Your task to perform on an android device: turn off wifi Image 0: 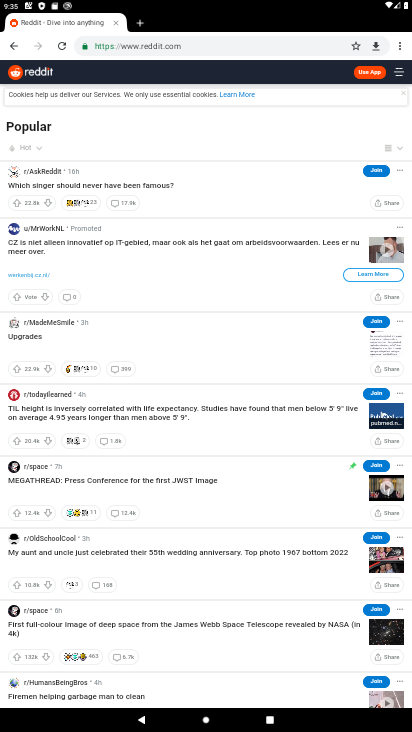
Step 0: press home button
Your task to perform on an android device: turn off wifi Image 1: 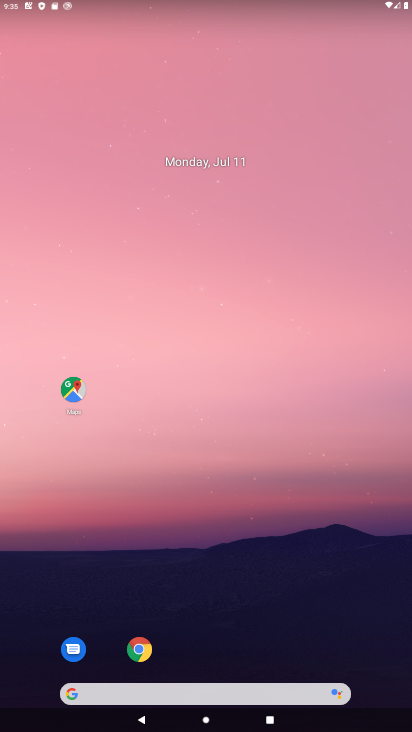
Step 1: drag from (203, 659) to (313, 26)
Your task to perform on an android device: turn off wifi Image 2: 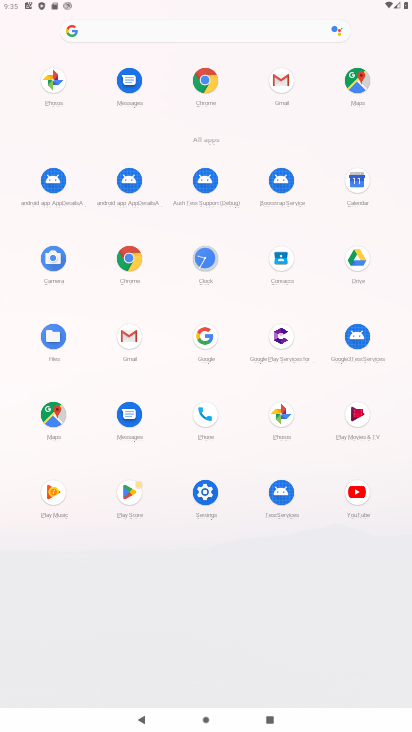
Step 2: click (198, 496)
Your task to perform on an android device: turn off wifi Image 3: 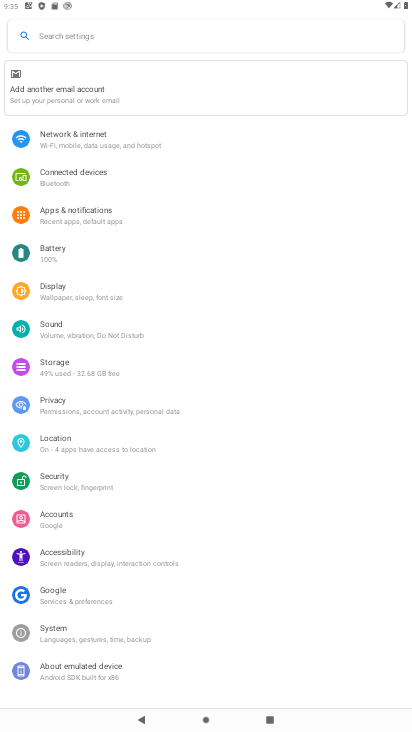
Step 3: click (104, 145)
Your task to perform on an android device: turn off wifi Image 4: 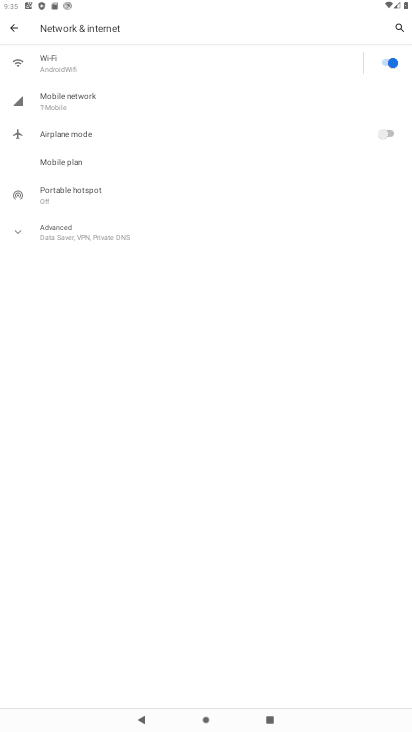
Step 4: click (374, 53)
Your task to perform on an android device: turn off wifi Image 5: 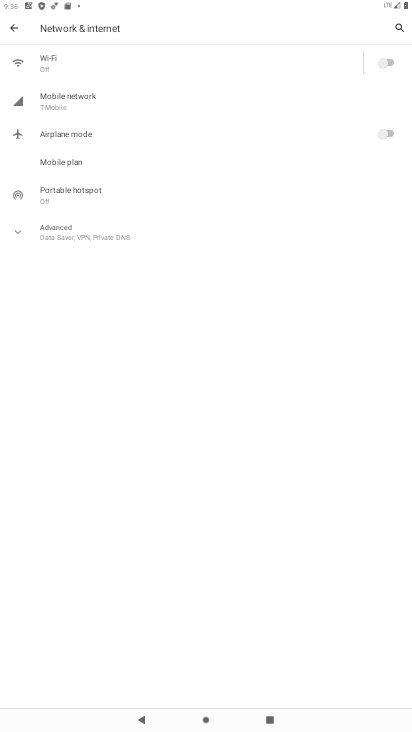
Step 5: task complete